Your task to perform on an android device: toggle show notifications on the lock screen Image 0: 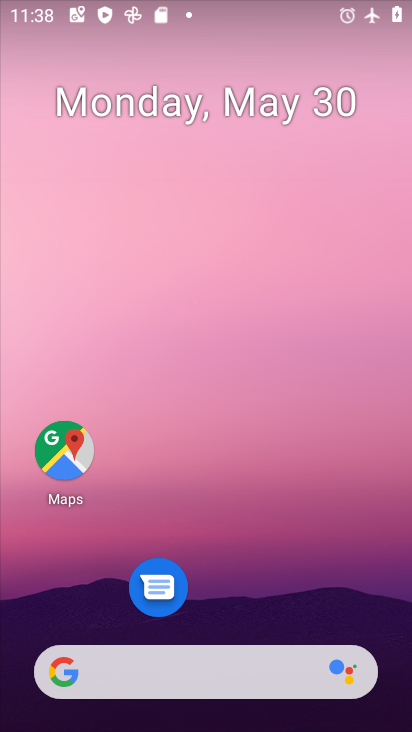
Step 0: drag from (259, 649) to (187, 8)
Your task to perform on an android device: toggle show notifications on the lock screen Image 1: 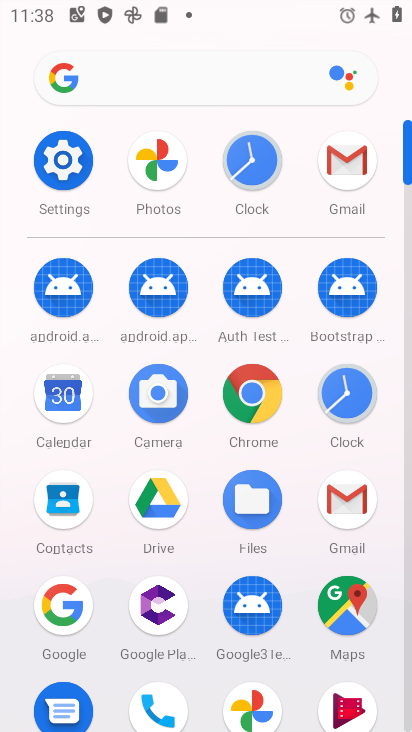
Step 1: click (76, 141)
Your task to perform on an android device: toggle show notifications on the lock screen Image 2: 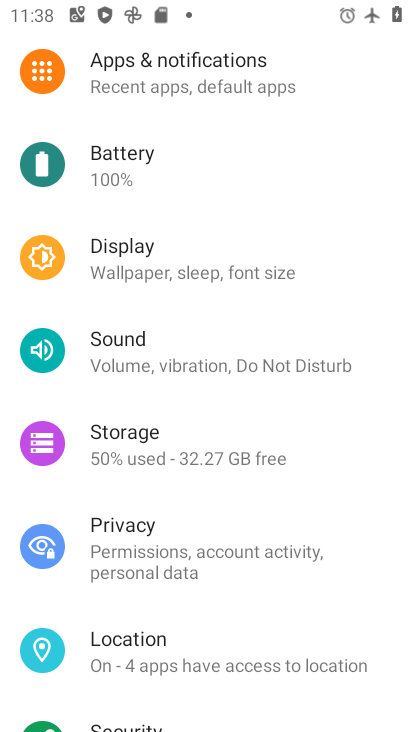
Step 2: click (150, 99)
Your task to perform on an android device: toggle show notifications on the lock screen Image 3: 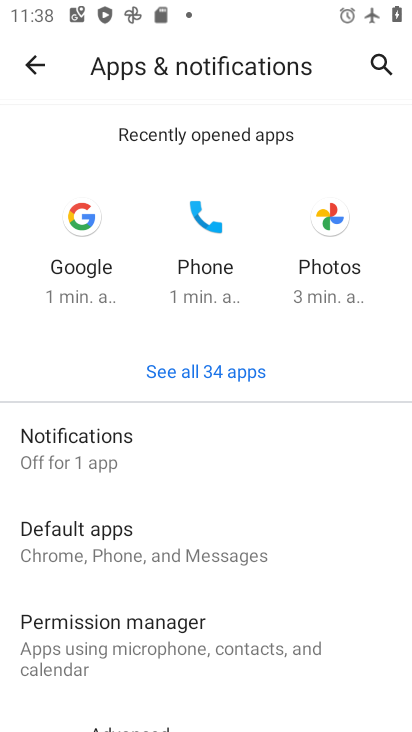
Step 3: click (67, 479)
Your task to perform on an android device: toggle show notifications on the lock screen Image 4: 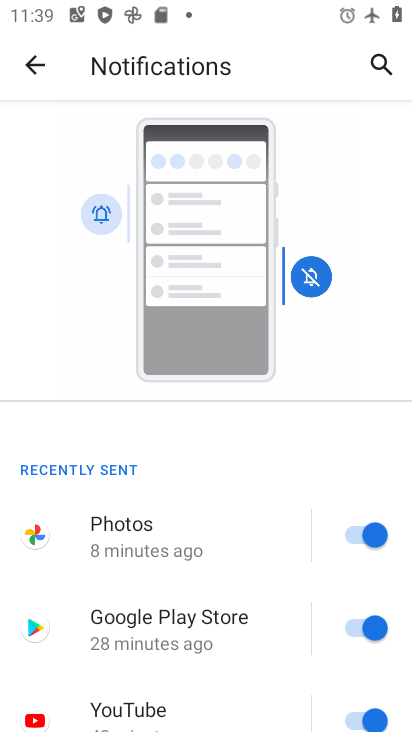
Step 4: drag from (211, 638) to (167, 194)
Your task to perform on an android device: toggle show notifications on the lock screen Image 5: 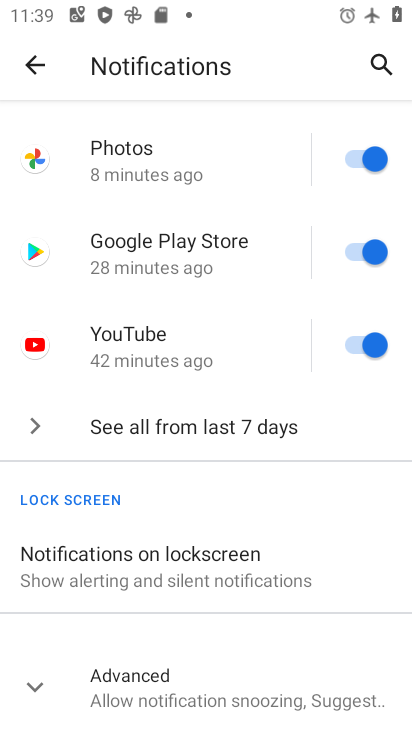
Step 5: click (199, 590)
Your task to perform on an android device: toggle show notifications on the lock screen Image 6: 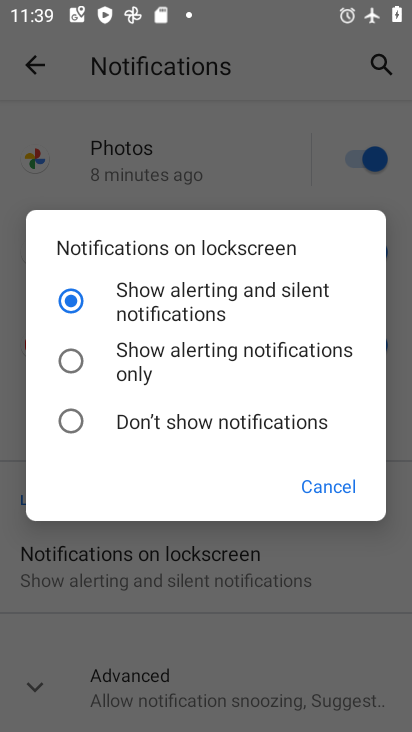
Step 6: click (143, 412)
Your task to perform on an android device: toggle show notifications on the lock screen Image 7: 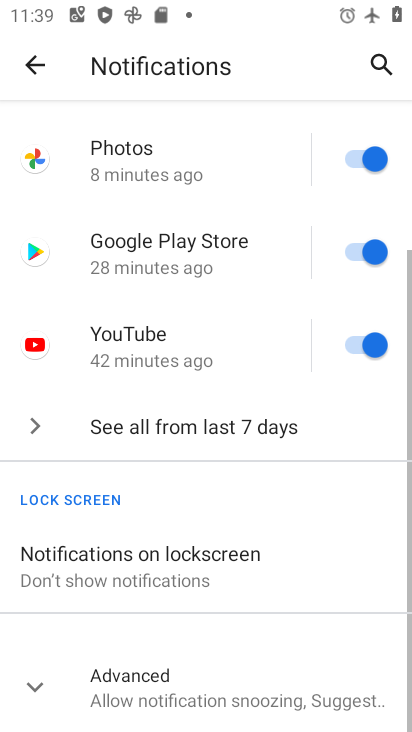
Step 7: task complete